Your task to perform on an android device: add a contact Image 0: 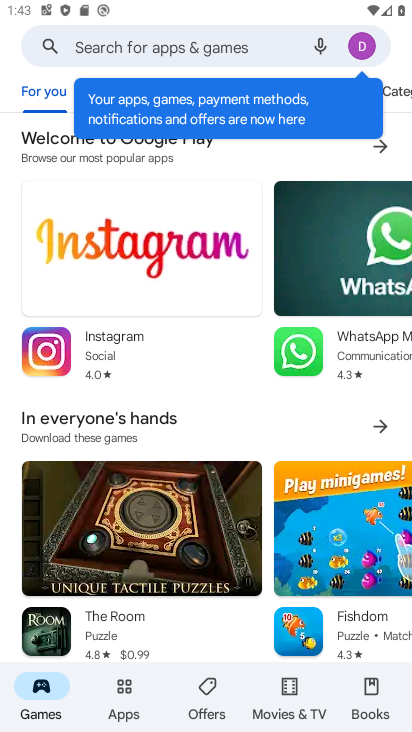
Step 0: press home button
Your task to perform on an android device: add a contact Image 1: 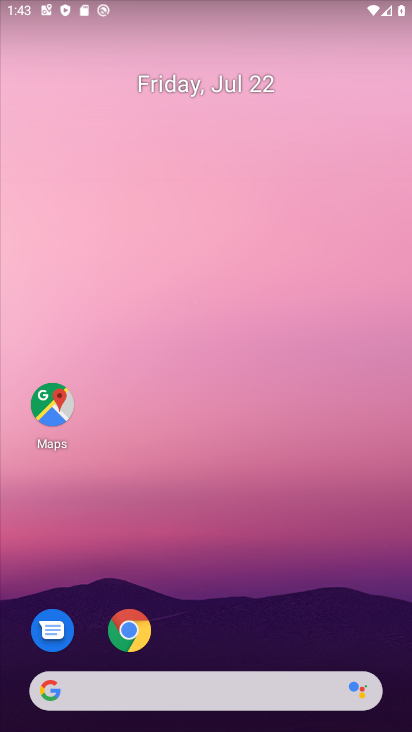
Step 1: drag from (193, 609) to (190, 2)
Your task to perform on an android device: add a contact Image 2: 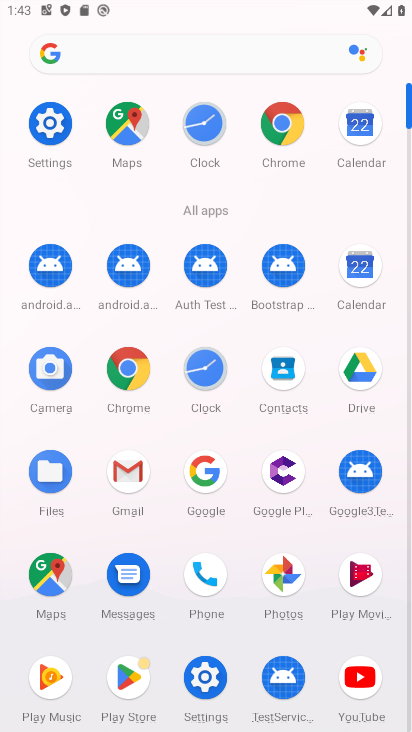
Step 2: click (287, 398)
Your task to perform on an android device: add a contact Image 3: 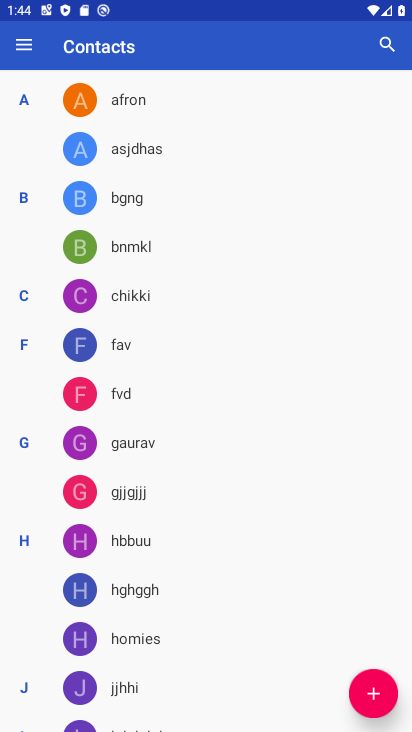
Step 3: click (372, 702)
Your task to perform on an android device: add a contact Image 4: 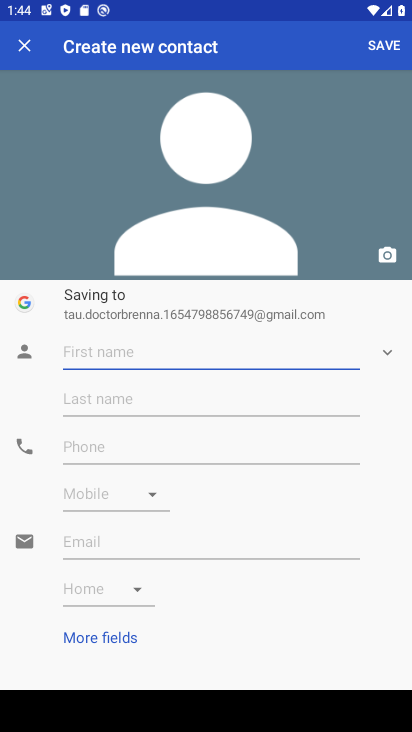
Step 4: type "Rajat"
Your task to perform on an android device: add a contact Image 5: 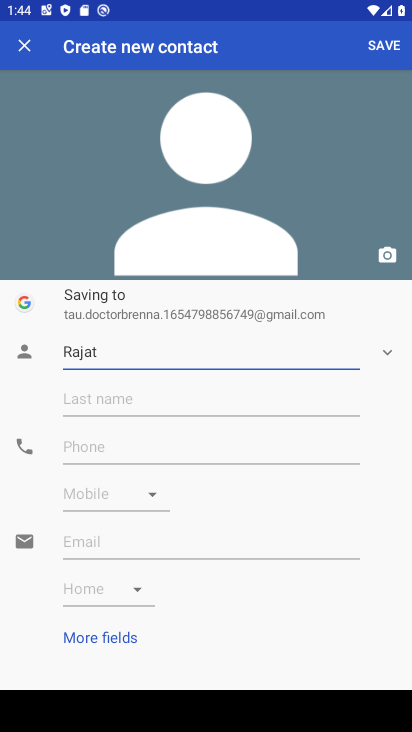
Step 5: click (240, 452)
Your task to perform on an android device: add a contact Image 6: 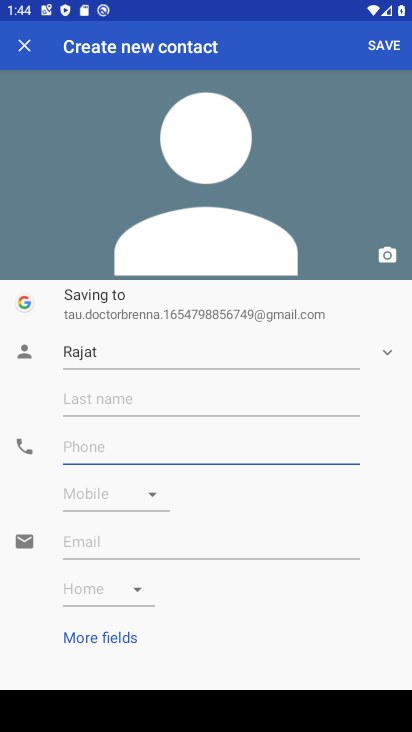
Step 6: type "9000989099"
Your task to perform on an android device: add a contact Image 7: 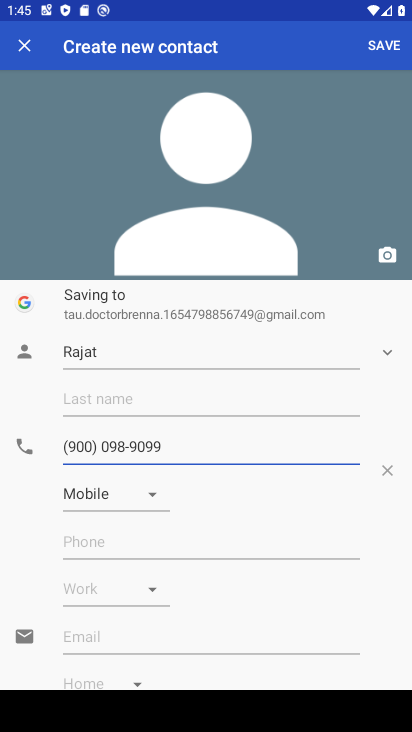
Step 7: click (377, 45)
Your task to perform on an android device: add a contact Image 8: 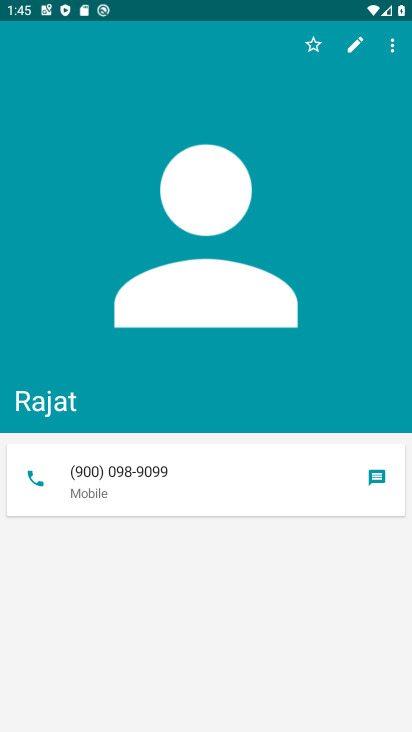
Step 8: task complete